Your task to perform on an android device: set the stopwatch Image 0: 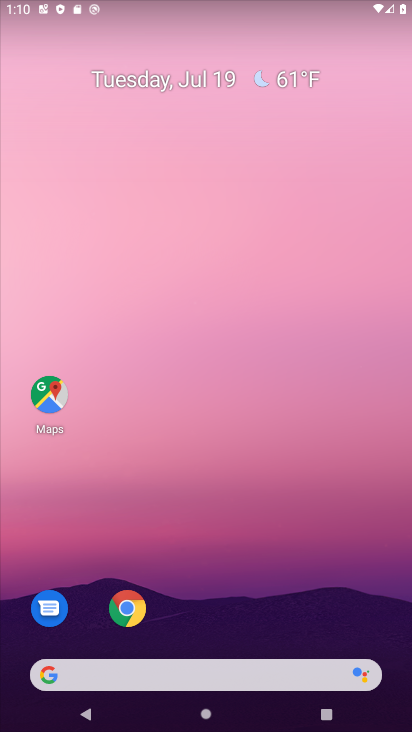
Step 0: drag from (251, 585) to (211, 95)
Your task to perform on an android device: set the stopwatch Image 1: 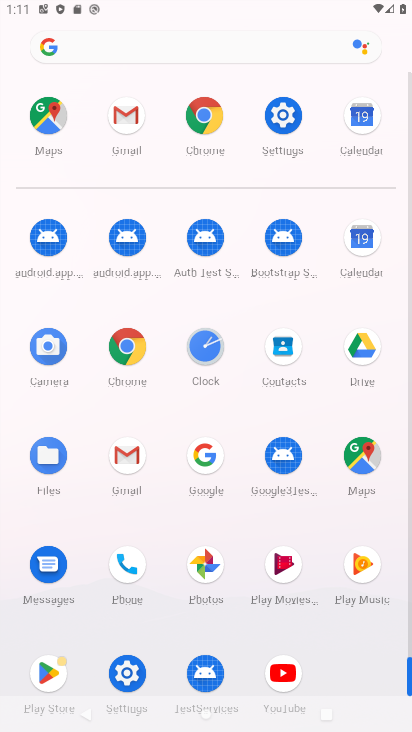
Step 1: click (205, 351)
Your task to perform on an android device: set the stopwatch Image 2: 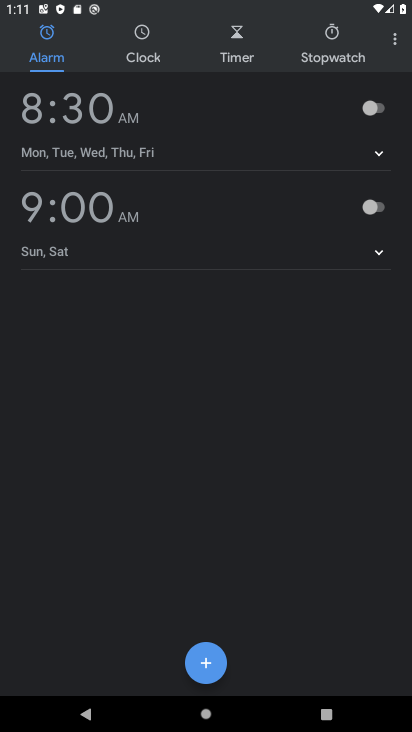
Step 2: click (327, 67)
Your task to perform on an android device: set the stopwatch Image 3: 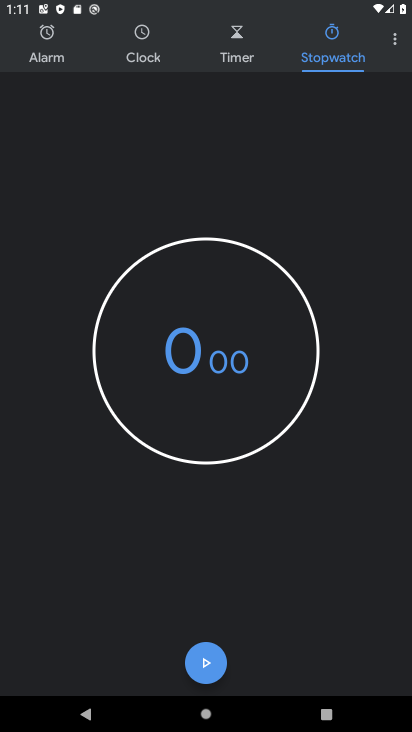
Step 3: click (213, 669)
Your task to perform on an android device: set the stopwatch Image 4: 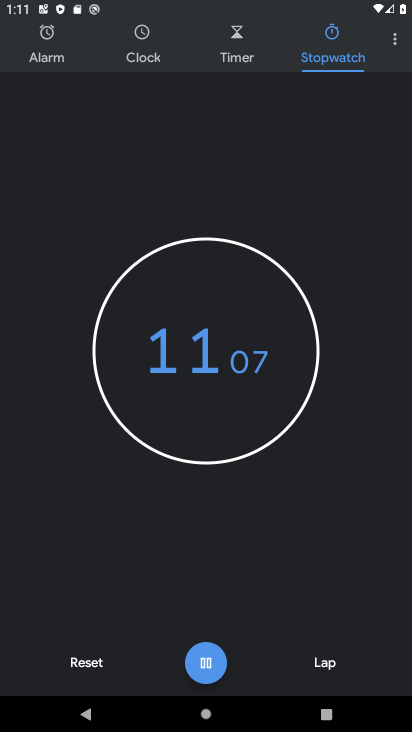
Step 4: task complete